Your task to perform on an android device: open chrome and create a bookmark for the current page Image 0: 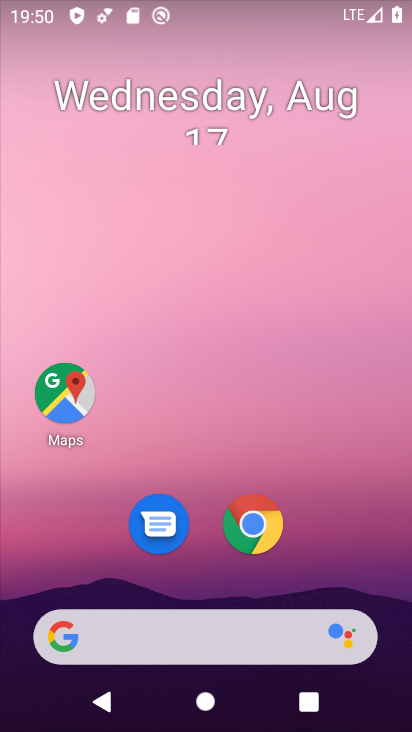
Step 0: click (254, 529)
Your task to perform on an android device: open chrome and create a bookmark for the current page Image 1: 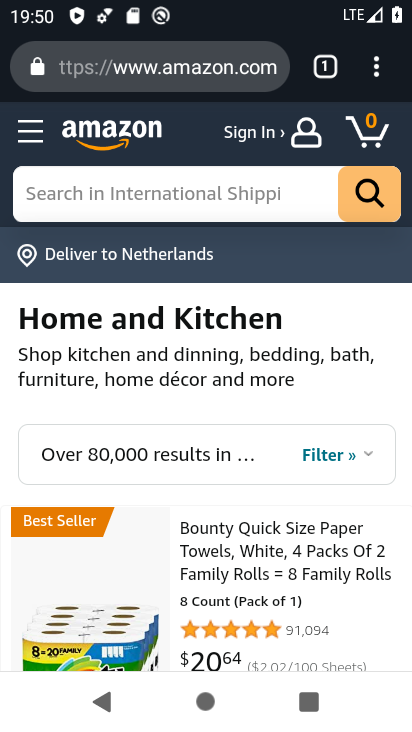
Step 1: click (379, 65)
Your task to perform on an android device: open chrome and create a bookmark for the current page Image 2: 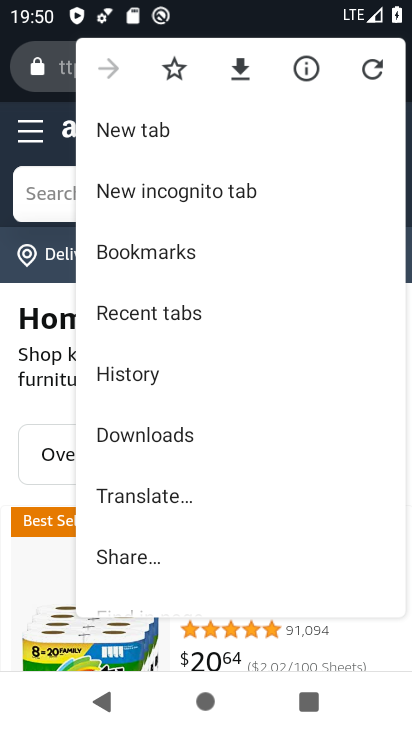
Step 2: click (176, 69)
Your task to perform on an android device: open chrome and create a bookmark for the current page Image 3: 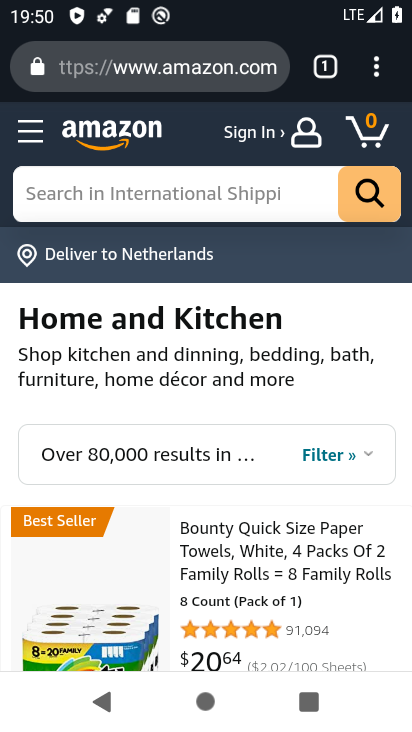
Step 3: task complete